Your task to perform on an android device: Open calendar and show me the third week of next month Image 0: 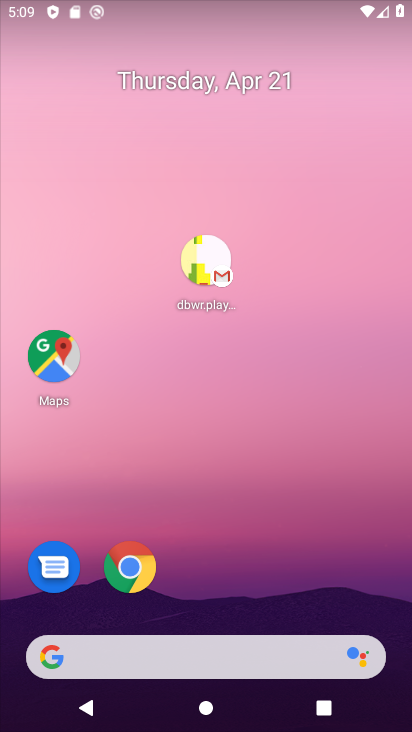
Step 0: drag from (194, 554) to (304, 0)
Your task to perform on an android device: Open calendar and show me the third week of next month Image 1: 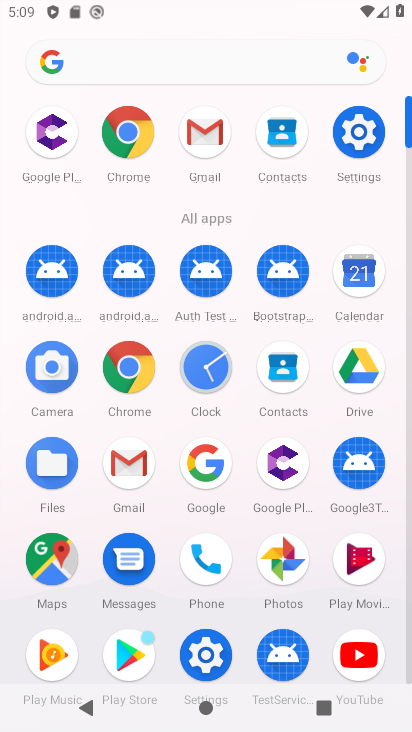
Step 1: click (357, 282)
Your task to perform on an android device: Open calendar and show me the third week of next month Image 2: 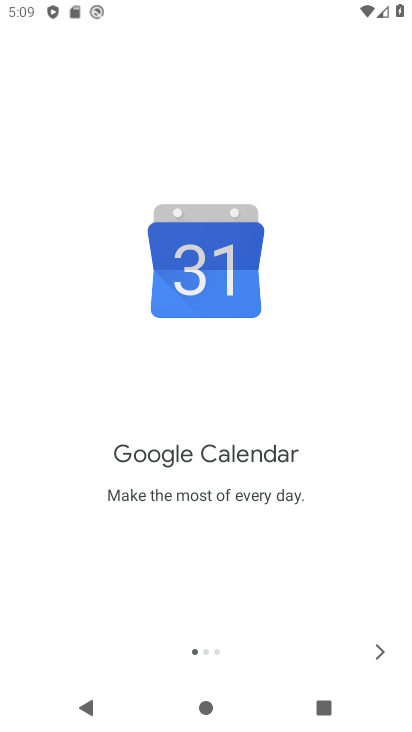
Step 2: click (375, 650)
Your task to perform on an android device: Open calendar and show me the third week of next month Image 3: 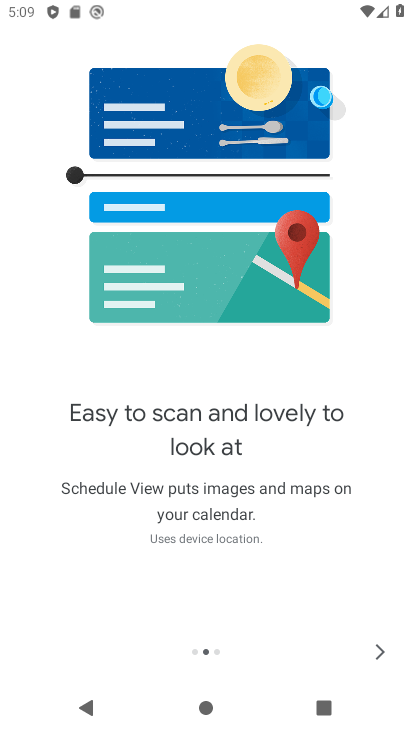
Step 3: click (375, 650)
Your task to perform on an android device: Open calendar and show me the third week of next month Image 4: 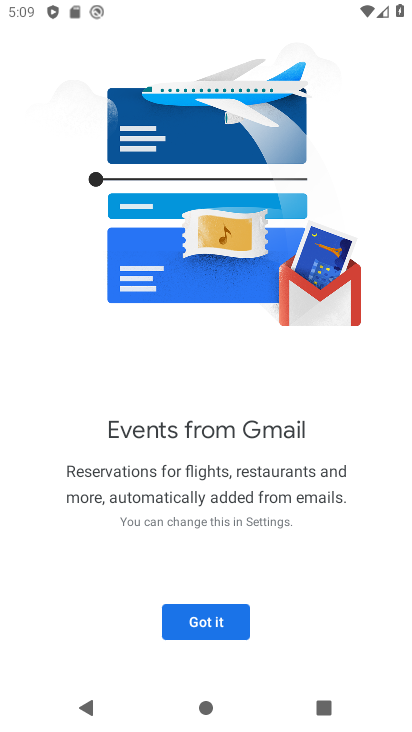
Step 4: click (375, 651)
Your task to perform on an android device: Open calendar and show me the third week of next month Image 5: 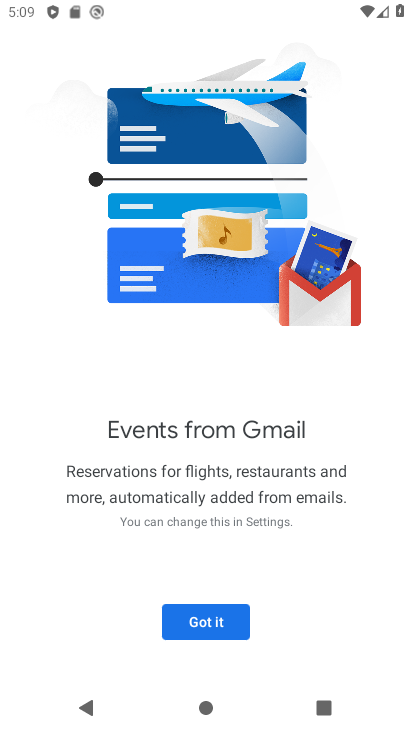
Step 5: click (226, 616)
Your task to perform on an android device: Open calendar and show me the third week of next month Image 6: 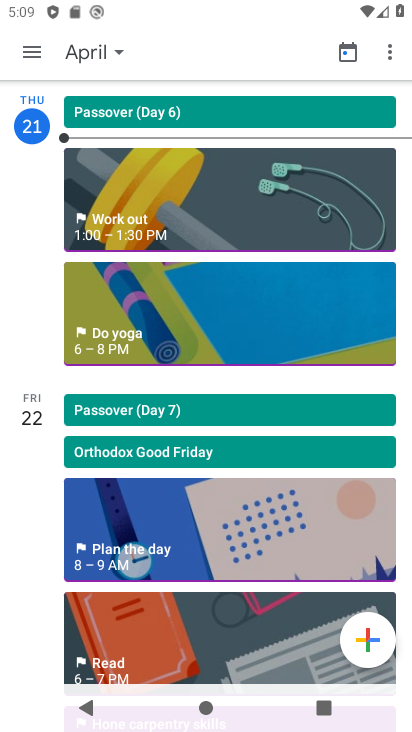
Step 6: click (35, 51)
Your task to perform on an android device: Open calendar and show me the third week of next month Image 7: 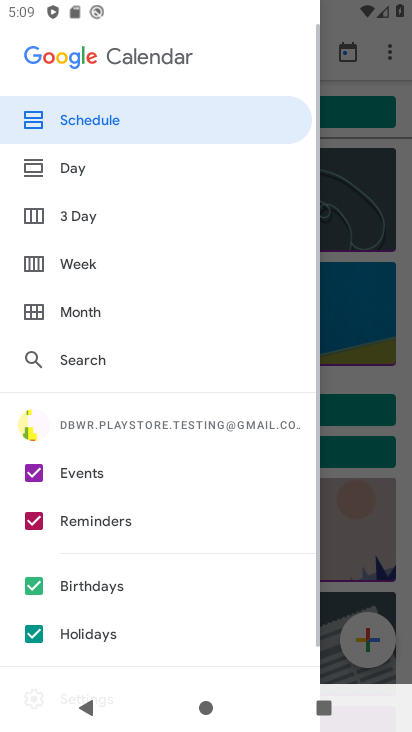
Step 7: click (95, 313)
Your task to perform on an android device: Open calendar and show me the third week of next month Image 8: 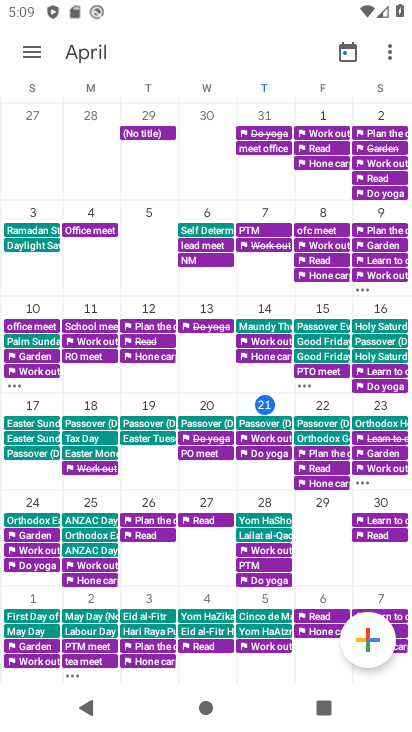
Step 8: click (95, 50)
Your task to perform on an android device: Open calendar and show me the third week of next month Image 9: 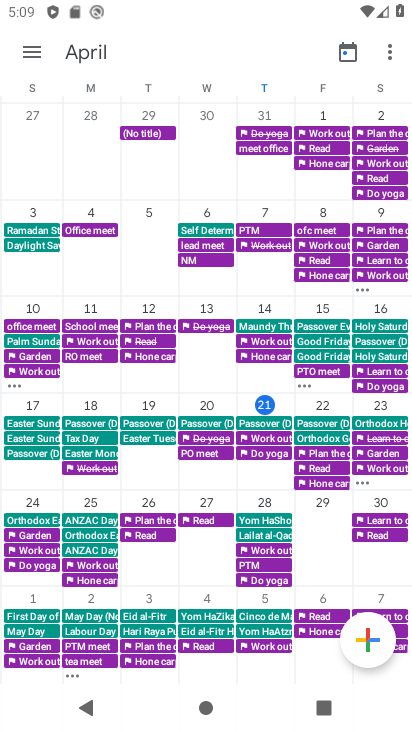
Step 9: drag from (281, 358) to (6, 282)
Your task to perform on an android device: Open calendar and show me the third week of next month Image 10: 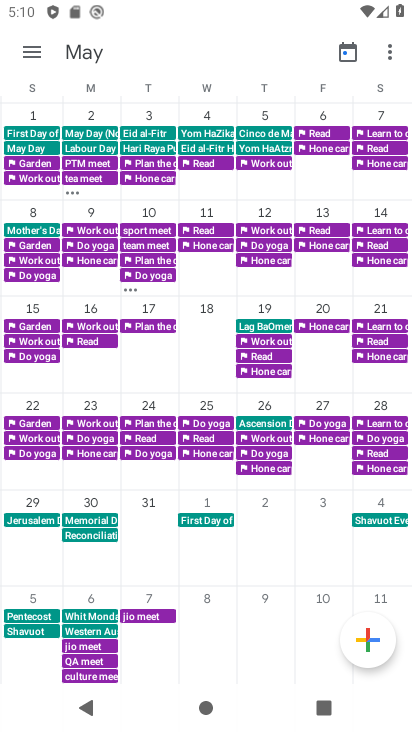
Step 10: click (31, 47)
Your task to perform on an android device: Open calendar and show me the third week of next month Image 11: 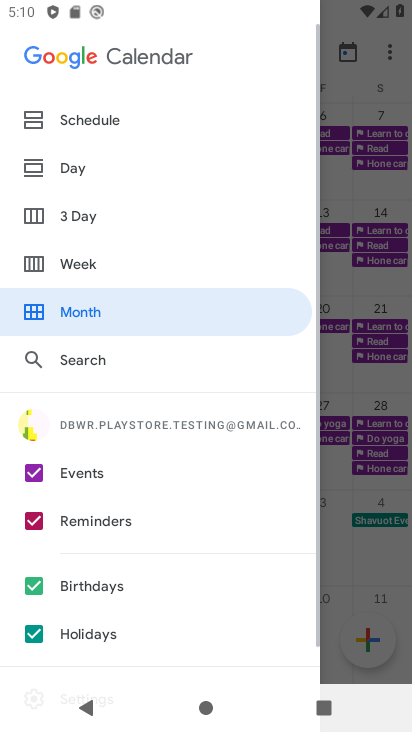
Step 11: click (82, 266)
Your task to perform on an android device: Open calendar and show me the third week of next month Image 12: 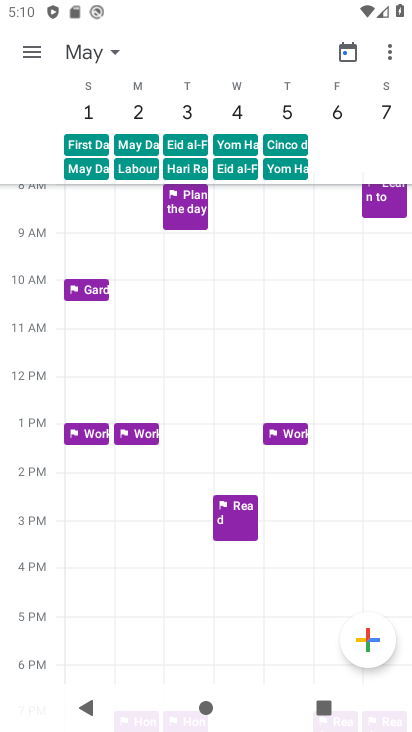
Step 12: task complete